Your task to perform on an android device: Go to Reddit.com Image 0: 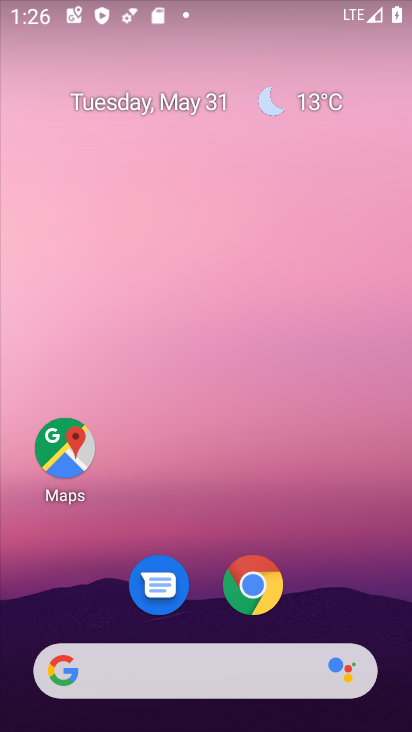
Step 0: click (260, 684)
Your task to perform on an android device: Go to Reddit.com Image 1: 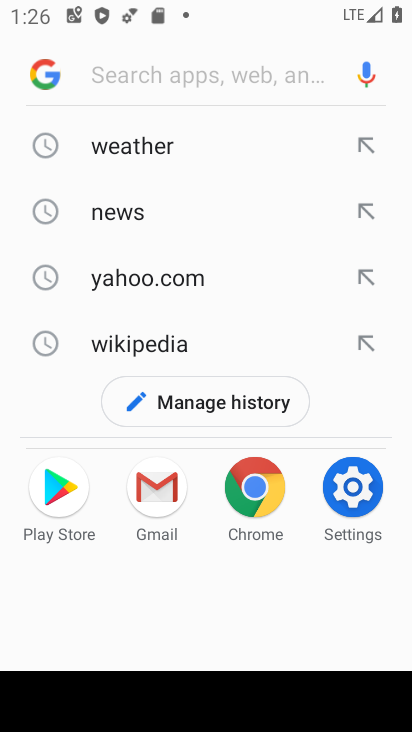
Step 1: type "reddit.com"
Your task to perform on an android device: Go to Reddit.com Image 2: 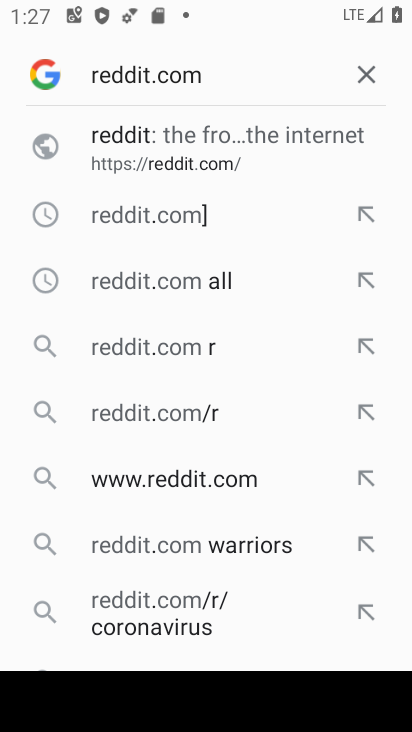
Step 2: click (207, 162)
Your task to perform on an android device: Go to Reddit.com Image 3: 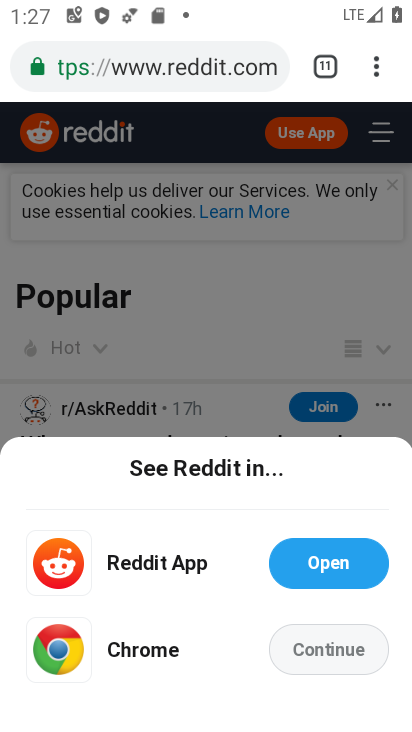
Step 3: task complete